Your task to perform on an android device: Go to privacy settings Image 0: 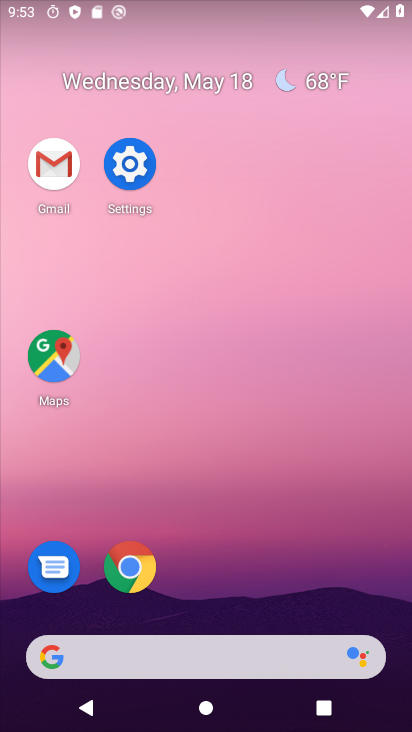
Step 0: click (137, 142)
Your task to perform on an android device: Go to privacy settings Image 1: 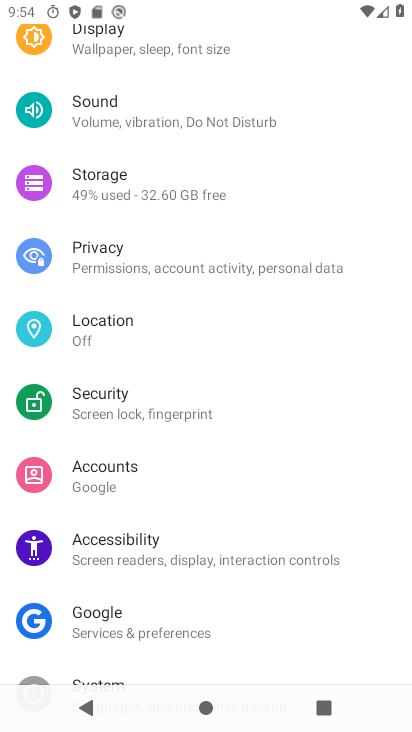
Step 1: click (159, 274)
Your task to perform on an android device: Go to privacy settings Image 2: 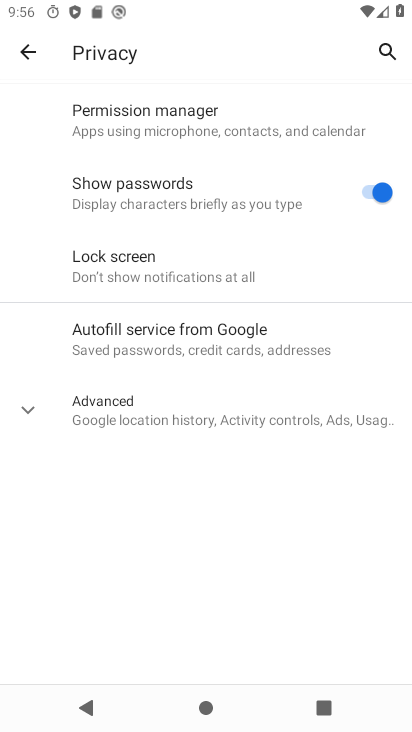
Step 2: task complete